Your task to perform on an android device: Search for razer blade on walmart, select the first entry, add it to the cart, then select checkout. Image 0: 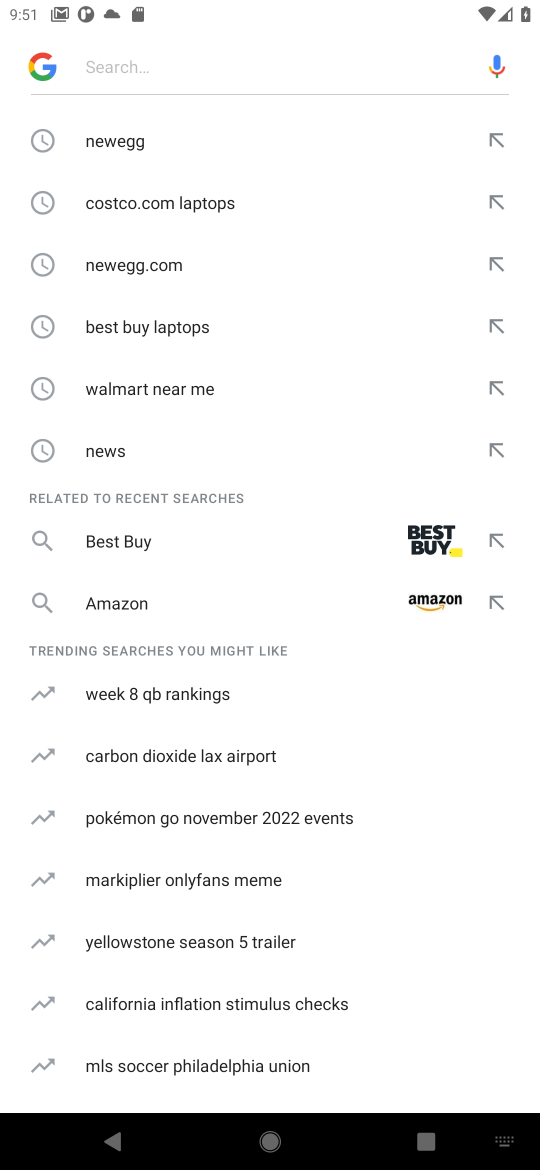
Step 0: press home button
Your task to perform on an android device: Search for razer blade on walmart, select the first entry, add it to the cart, then select checkout. Image 1: 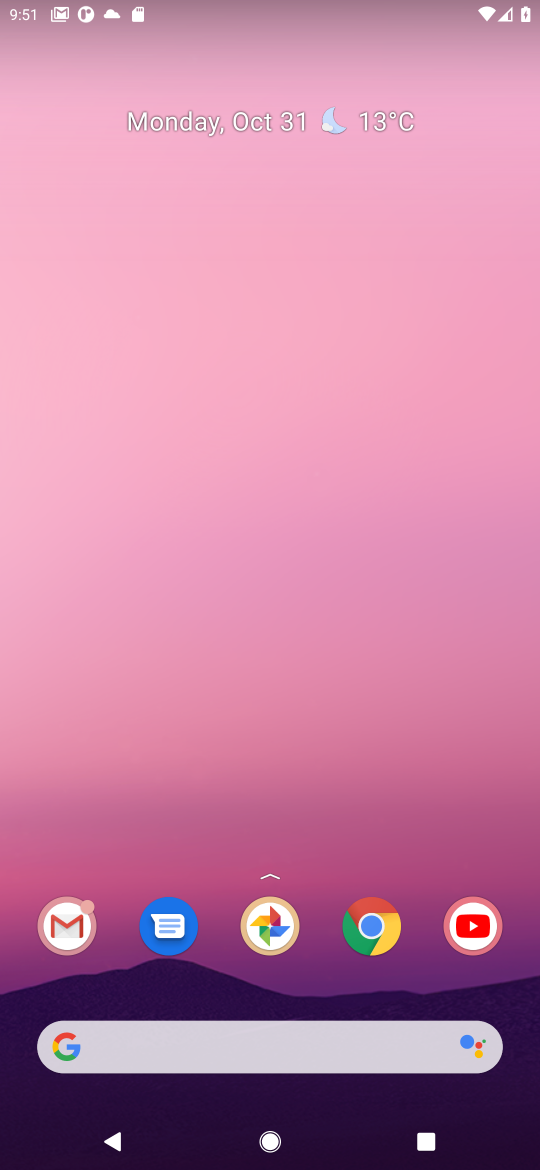
Step 1: click (306, 1045)
Your task to perform on an android device: Search for razer blade on walmart, select the first entry, add it to the cart, then select checkout. Image 2: 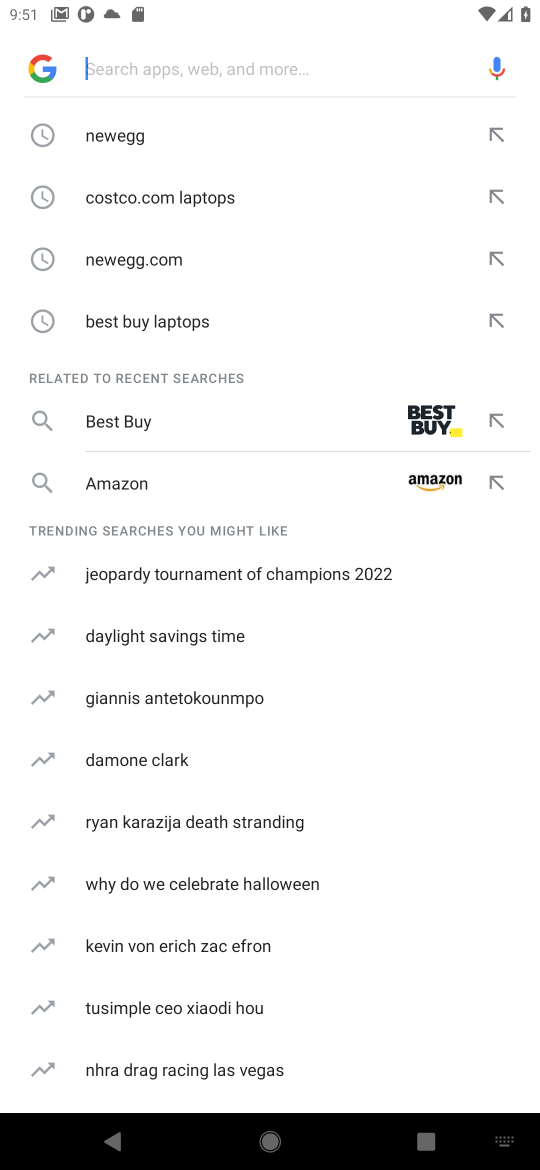
Step 2: type "walmart"
Your task to perform on an android device: Search for razer blade on walmart, select the first entry, add it to the cart, then select checkout. Image 3: 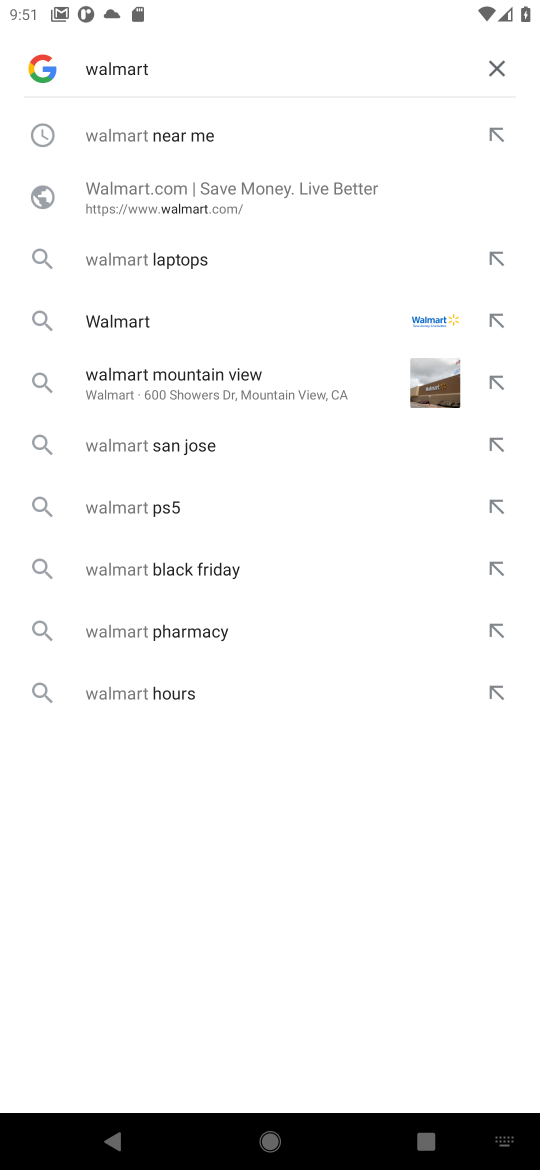
Step 3: click (128, 318)
Your task to perform on an android device: Search for razer blade on walmart, select the first entry, add it to the cart, then select checkout. Image 4: 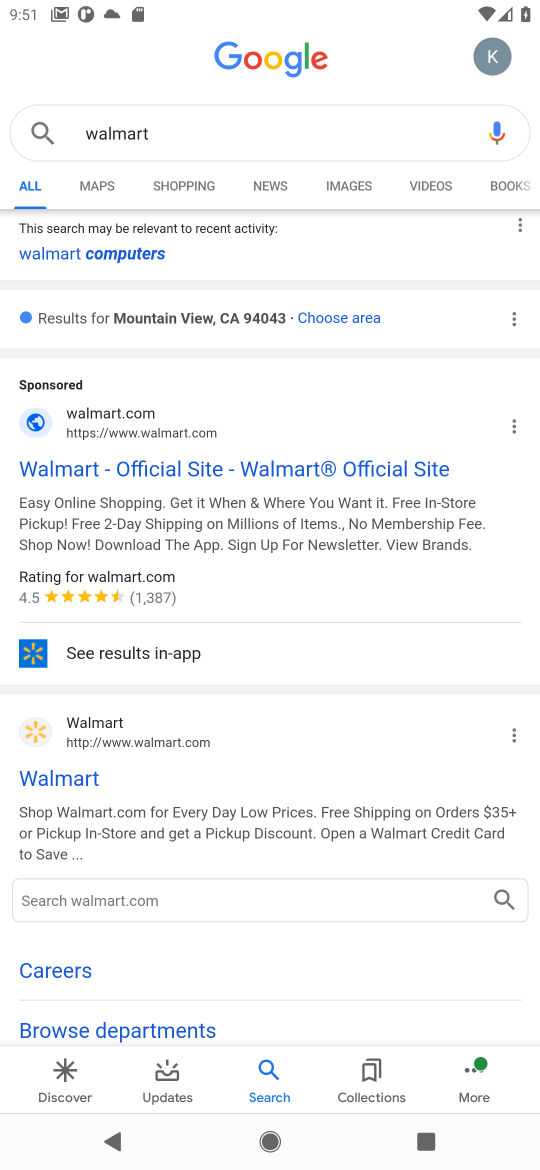
Step 4: click (48, 778)
Your task to perform on an android device: Search for razer blade on walmart, select the first entry, add it to the cart, then select checkout. Image 5: 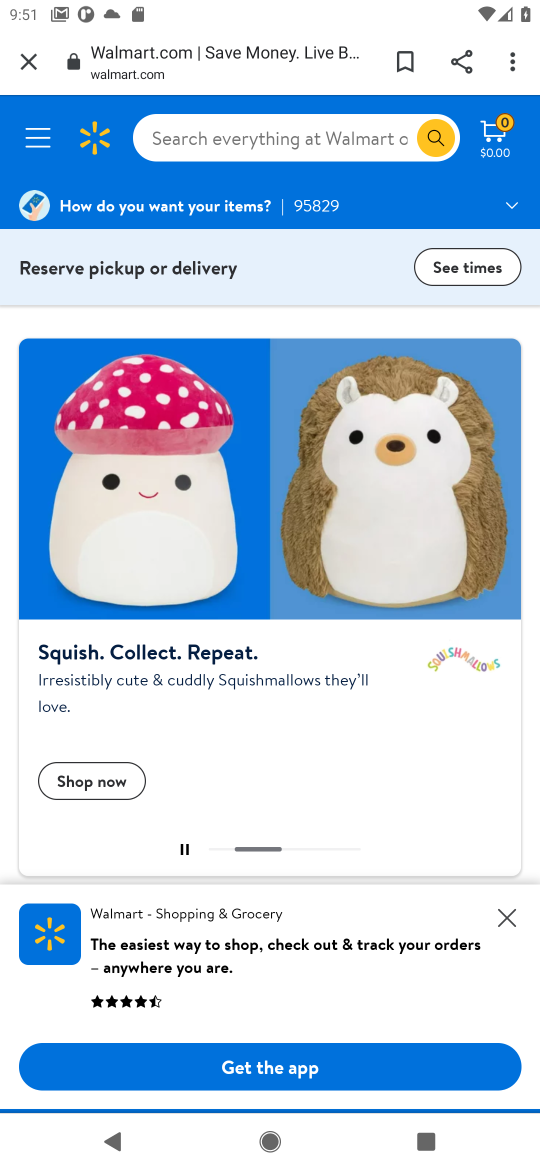
Step 5: click (315, 133)
Your task to perform on an android device: Search for razer blade on walmart, select the first entry, add it to the cart, then select checkout. Image 6: 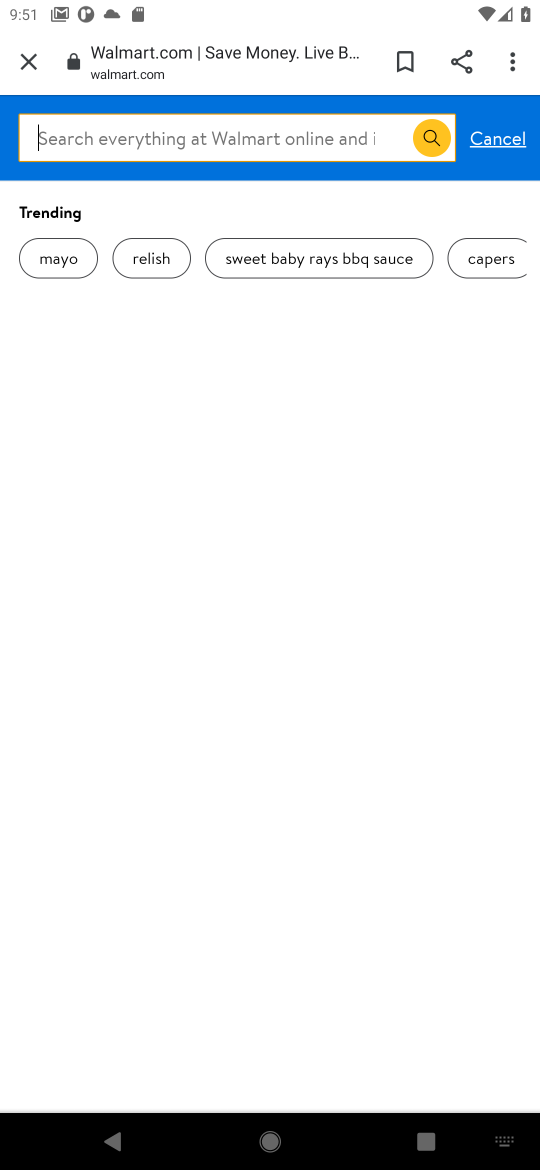
Step 6: type "razer blade"
Your task to perform on an android device: Search for razer blade on walmart, select the first entry, add it to the cart, then select checkout. Image 7: 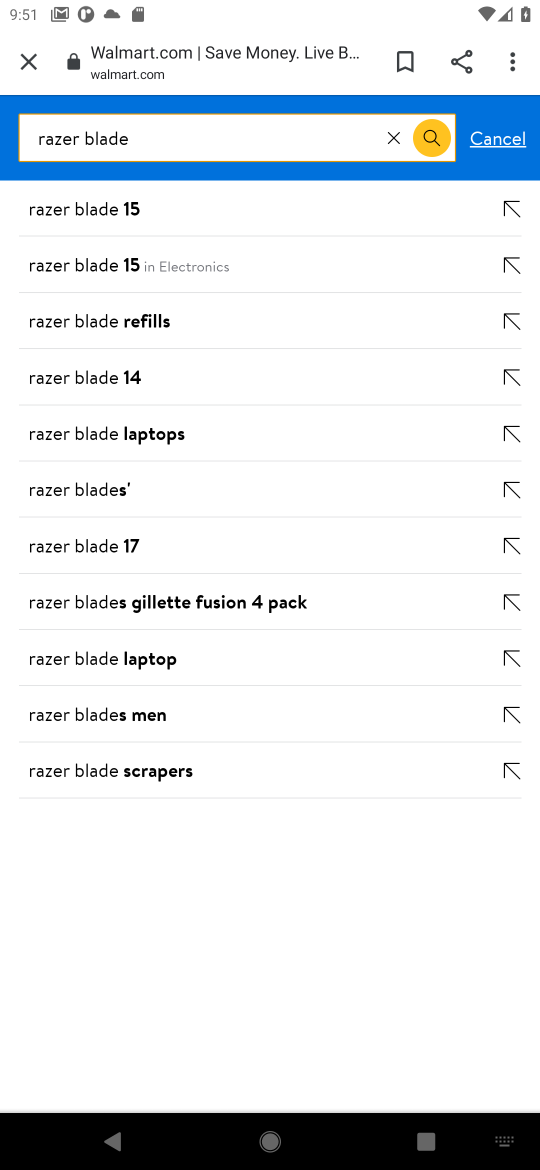
Step 7: click (105, 208)
Your task to perform on an android device: Search for razer blade on walmart, select the first entry, add it to the cart, then select checkout. Image 8: 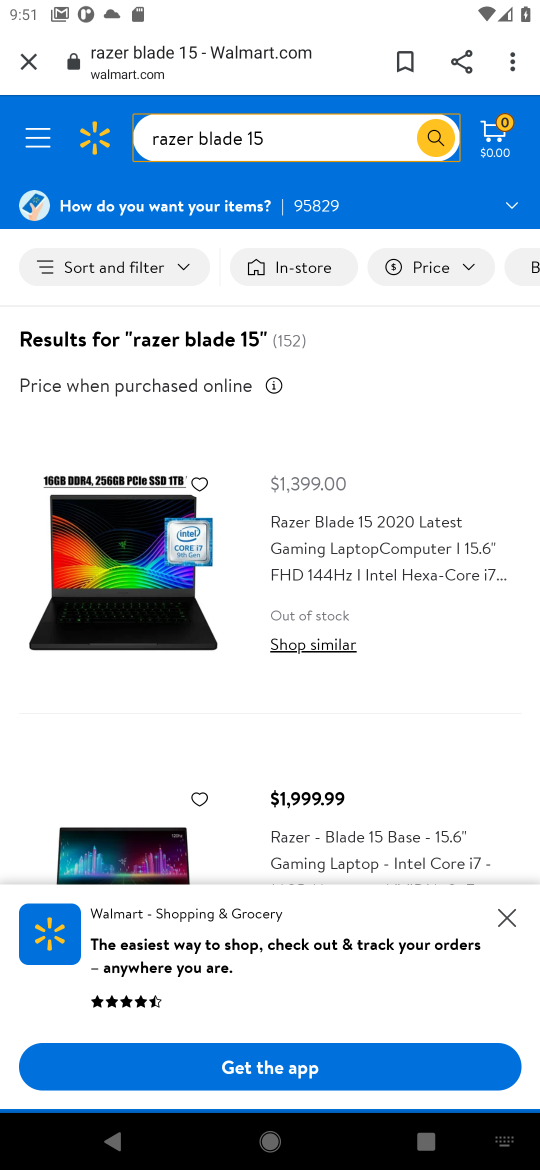
Step 8: click (336, 851)
Your task to perform on an android device: Search for razer blade on walmart, select the first entry, add it to the cart, then select checkout. Image 9: 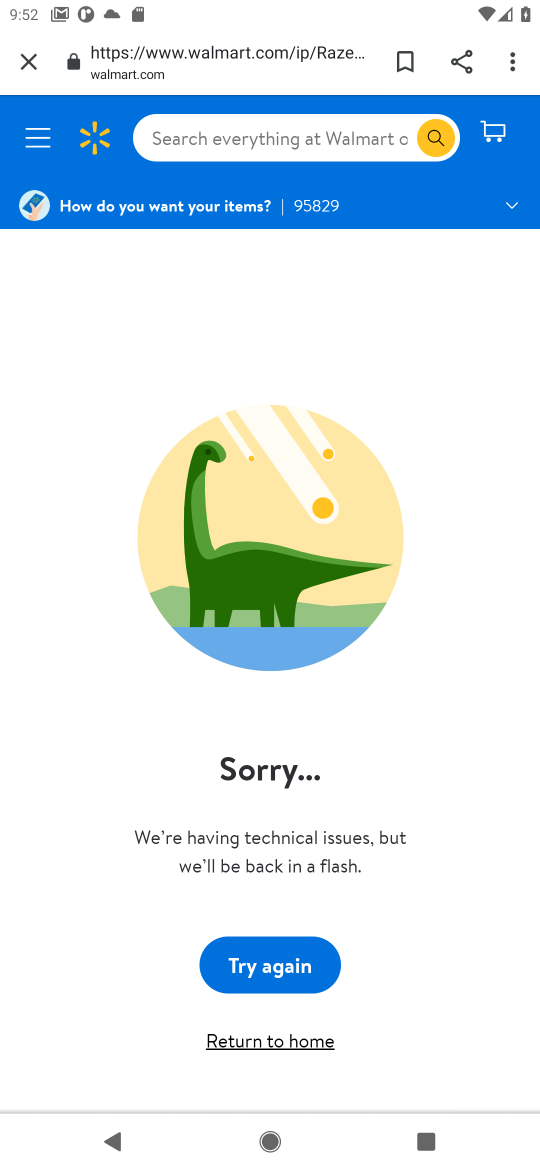
Step 9: click (434, 1068)
Your task to perform on an android device: Search for razer blade on walmart, select the first entry, add it to the cart, then select checkout. Image 10: 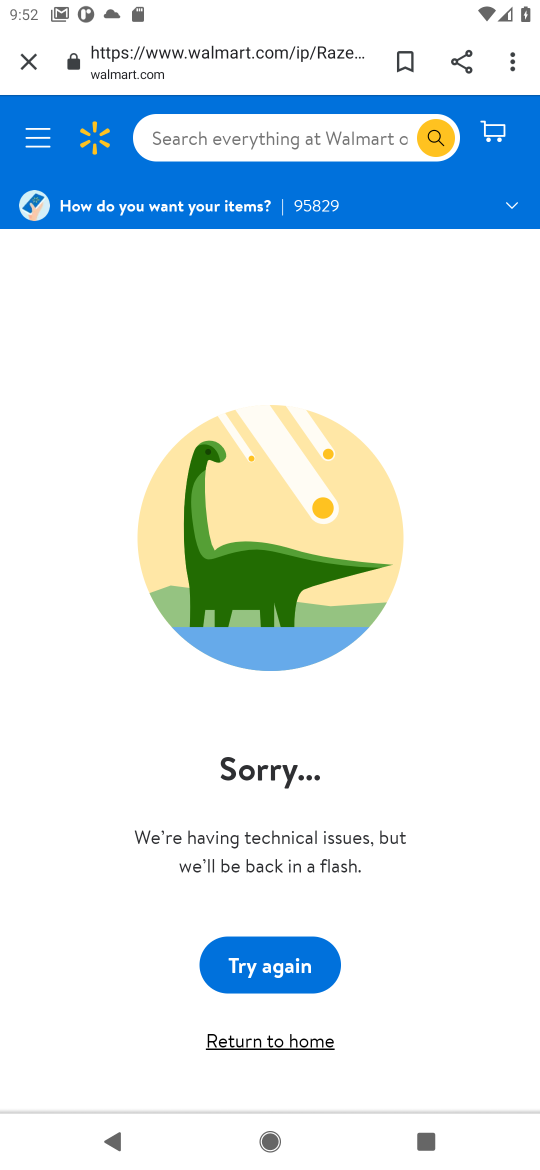
Step 10: click (278, 963)
Your task to perform on an android device: Search for razer blade on walmart, select the first entry, add it to the cart, then select checkout. Image 11: 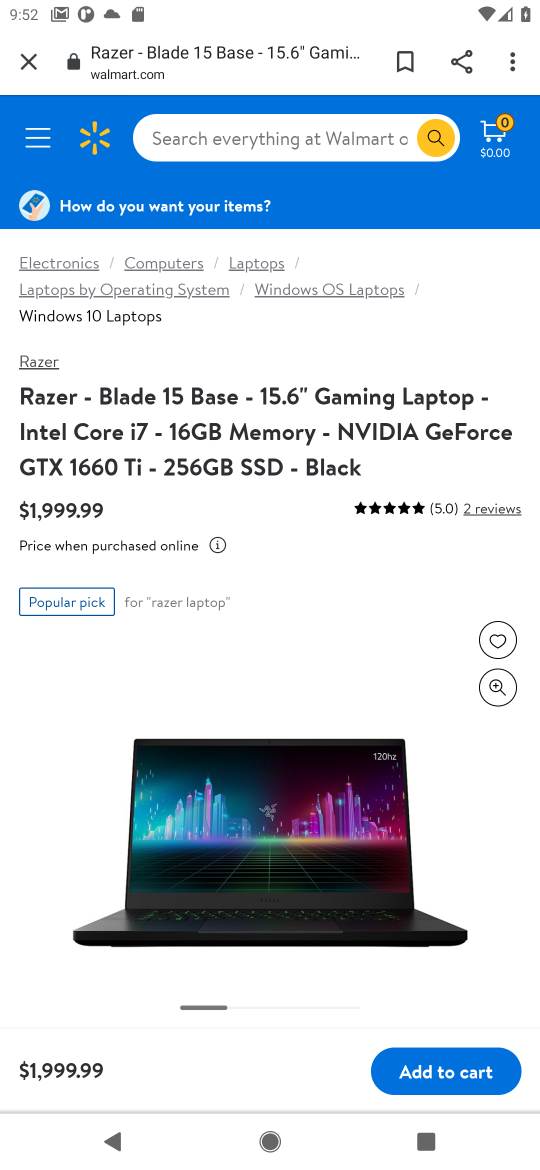
Step 11: click (459, 1068)
Your task to perform on an android device: Search for razer blade on walmart, select the first entry, add it to the cart, then select checkout. Image 12: 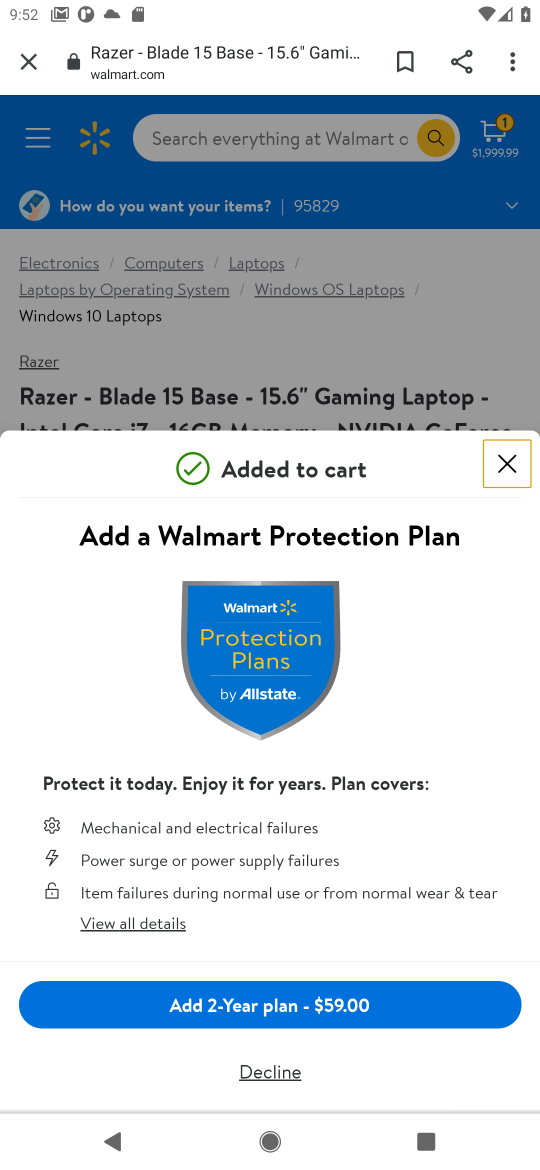
Step 12: click (503, 469)
Your task to perform on an android device: Search for razer blade on walmart, select the first entry, add it to the cart, then select checkout. Image 13: 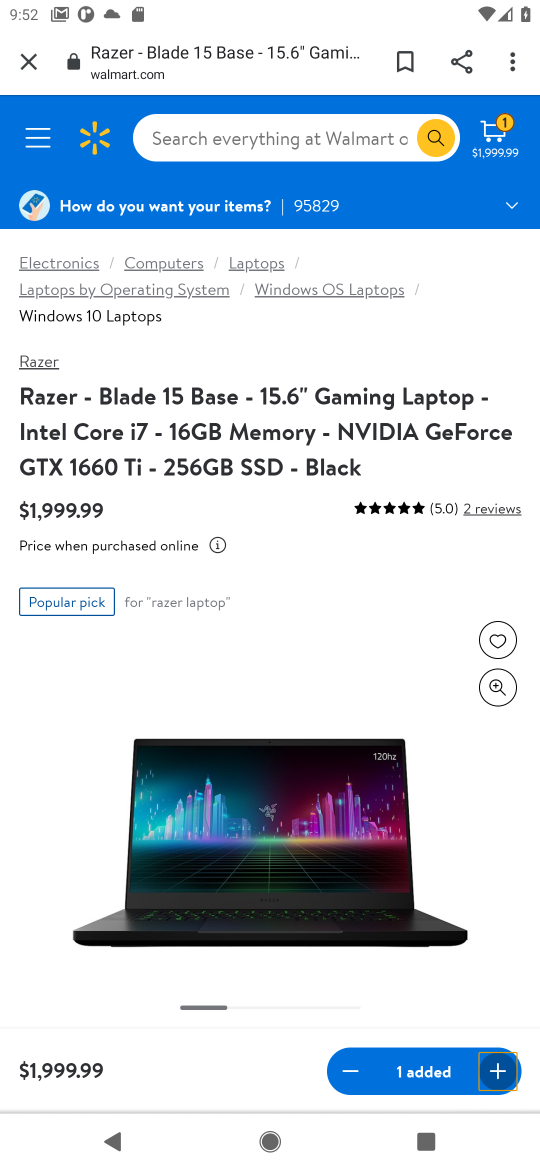
Step 13: click (498, 126)
Your task to perform on an android device: Search for razer blade on walmart, select the first entry, add it to the cart, then select checkout. Image 14: 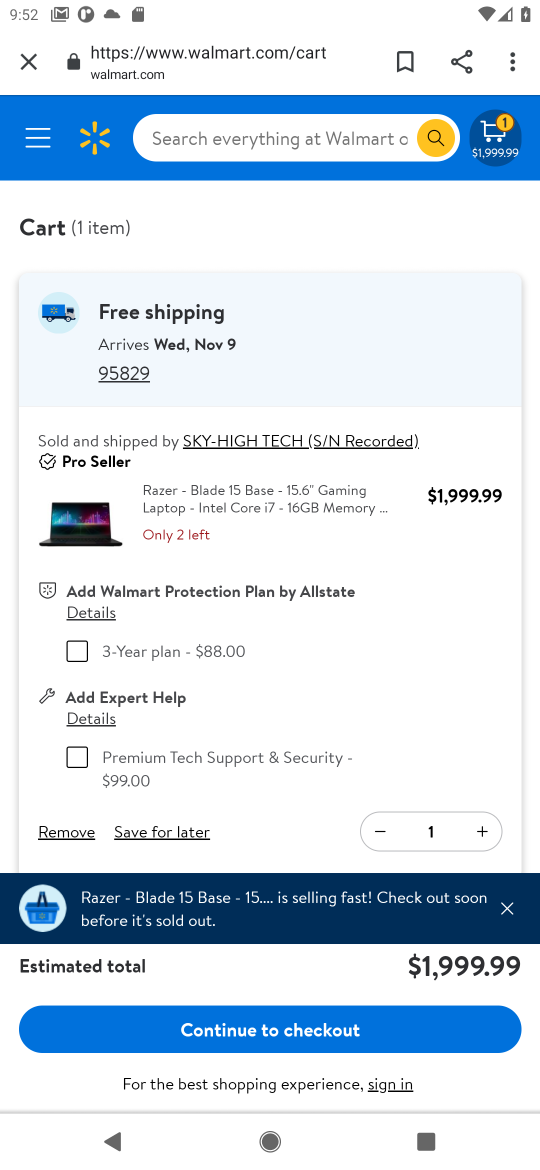
Step 14: click (258, 1019)
Your task to perform on an android device: Search for razer blade on walmart, select the first entry, add it to the cart, then select checkout. Image 15: 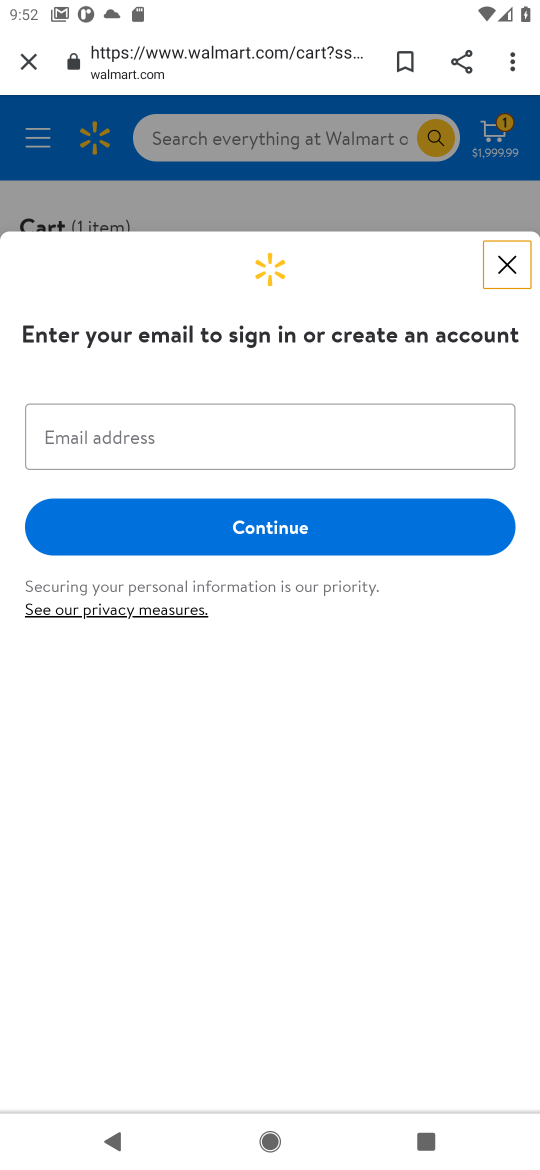
Step 15: task complete